Your task to perform on an android device: Open notification settings Image 0: 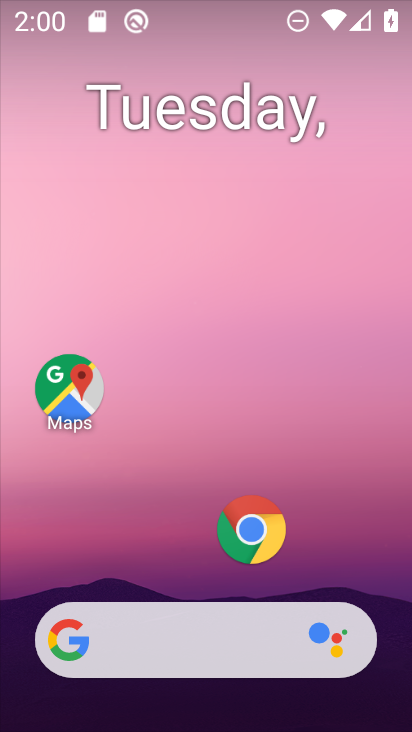
Step 0: drag from (285, 680) to (346, 54)
Your task to perform on an android device: Open notification settings Image 1: 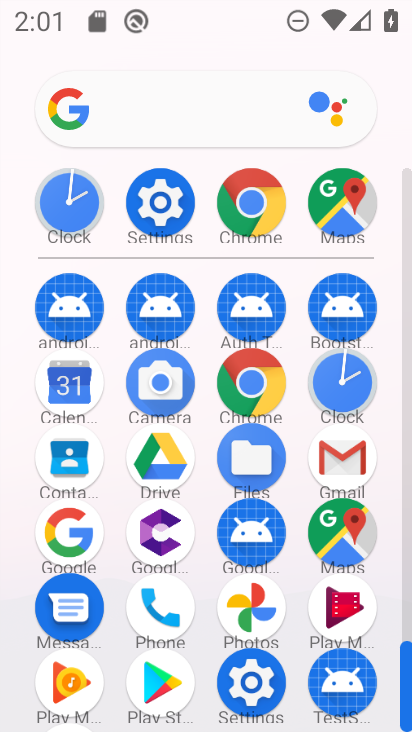
Step 1: click (238, 692)
Your task to perform on an android device: Open notification settings Image 2: 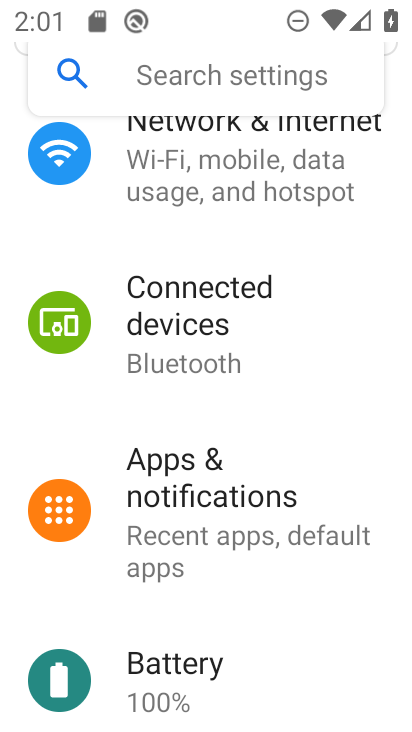
Step 2: click (199, 70)
Your task to perform on an android device: Open notification settings Image 3: 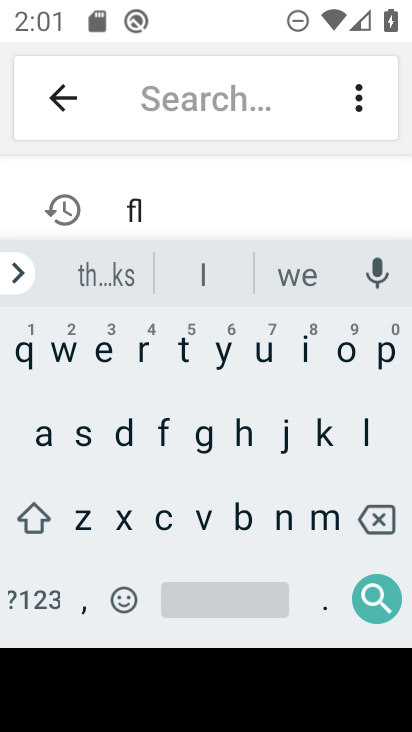
Step 3: click (278, 522)
Your task to perform on an android device: Open notification settings Image 4: 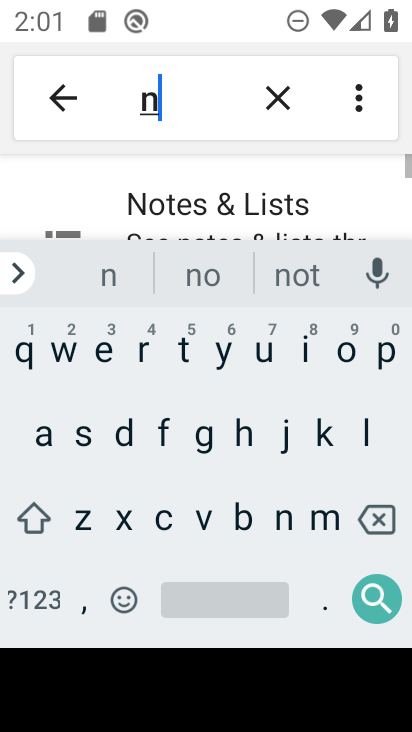
Step 4: click (350, 344)
Your task to perform on an android device: Open notification settings Image 5: 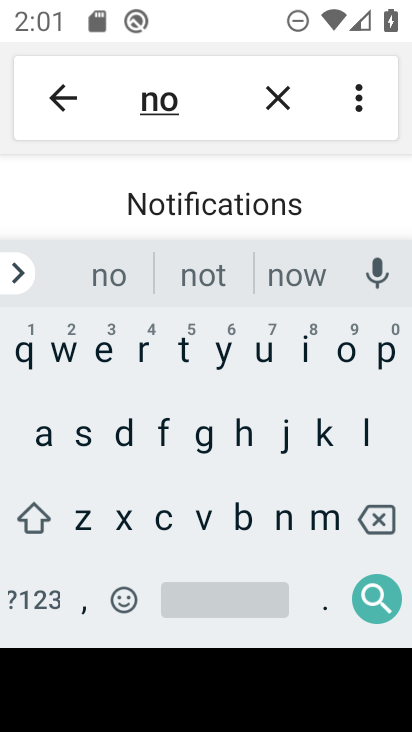
Step 5: click (159, 216)
Your task to perform on an android device: Open notification settings Image 6: 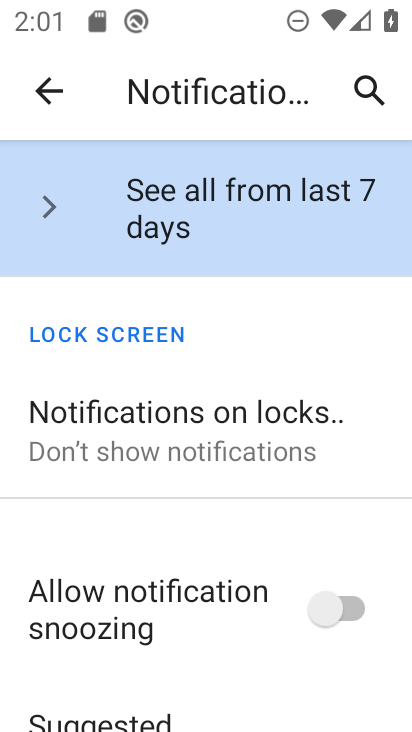
Step 6: click (97, 443)
Your task to perform on an android device: Open notification settings Image 7: 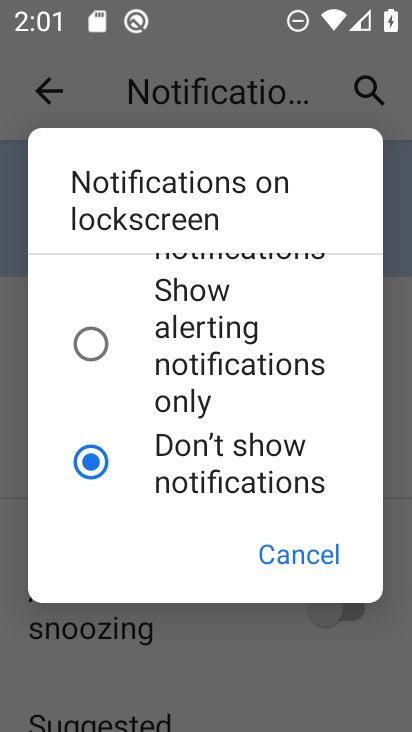
Step 7: task complete